Your task to perform on an android device: Search for top rated burger restaurants on Maps Image 0: 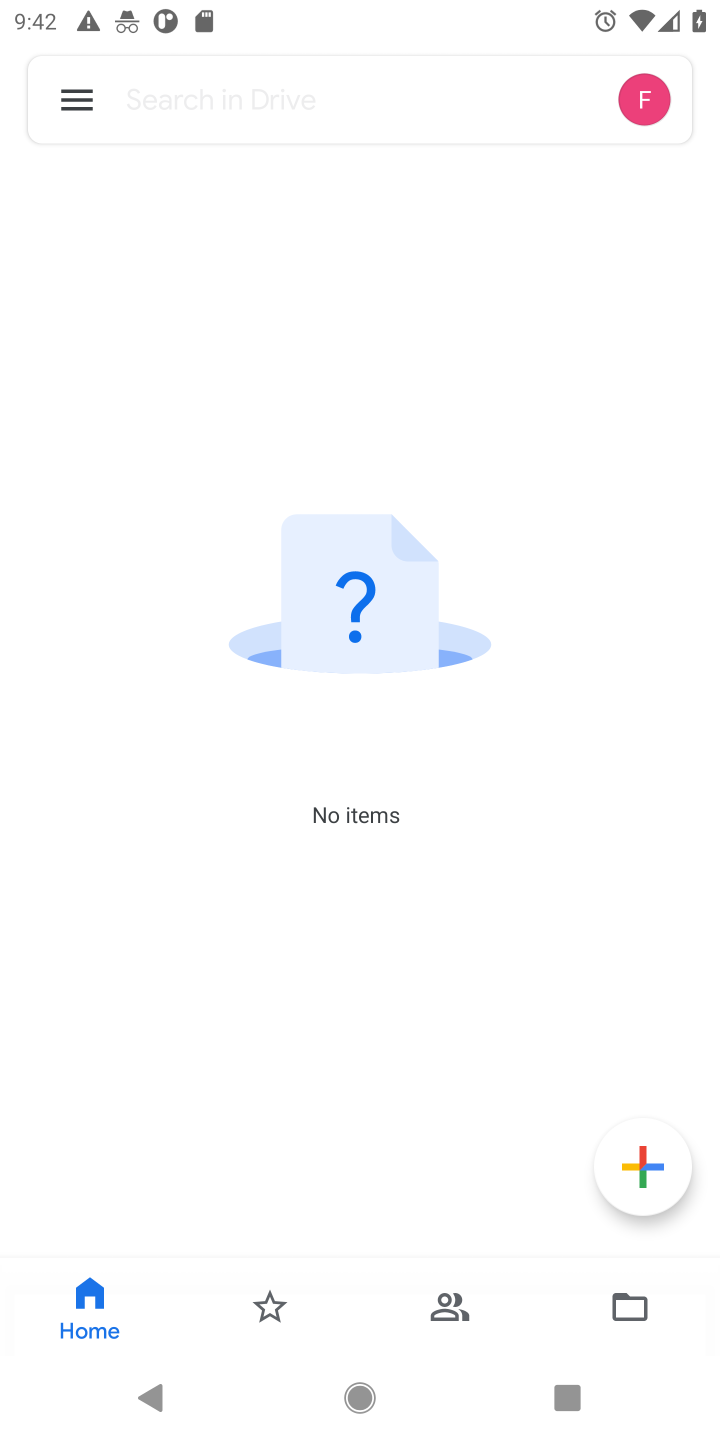
Step 0: press home button
Your task to perform on an android device: Search for top rated burger restaurants on Maps Image 1: 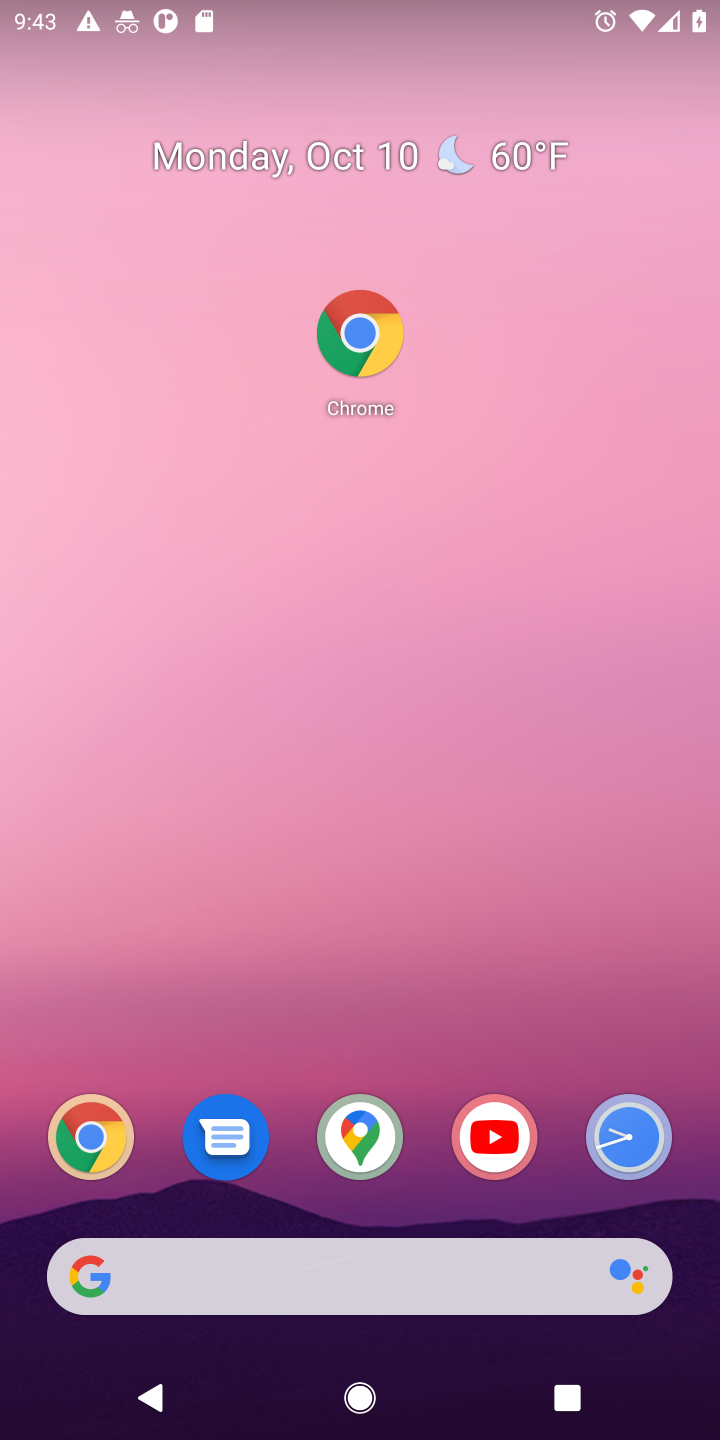
Step 1: click (350, 1127)
Your task to perform on an android device: Search for top rated burger restaurants on Maps Image 2: 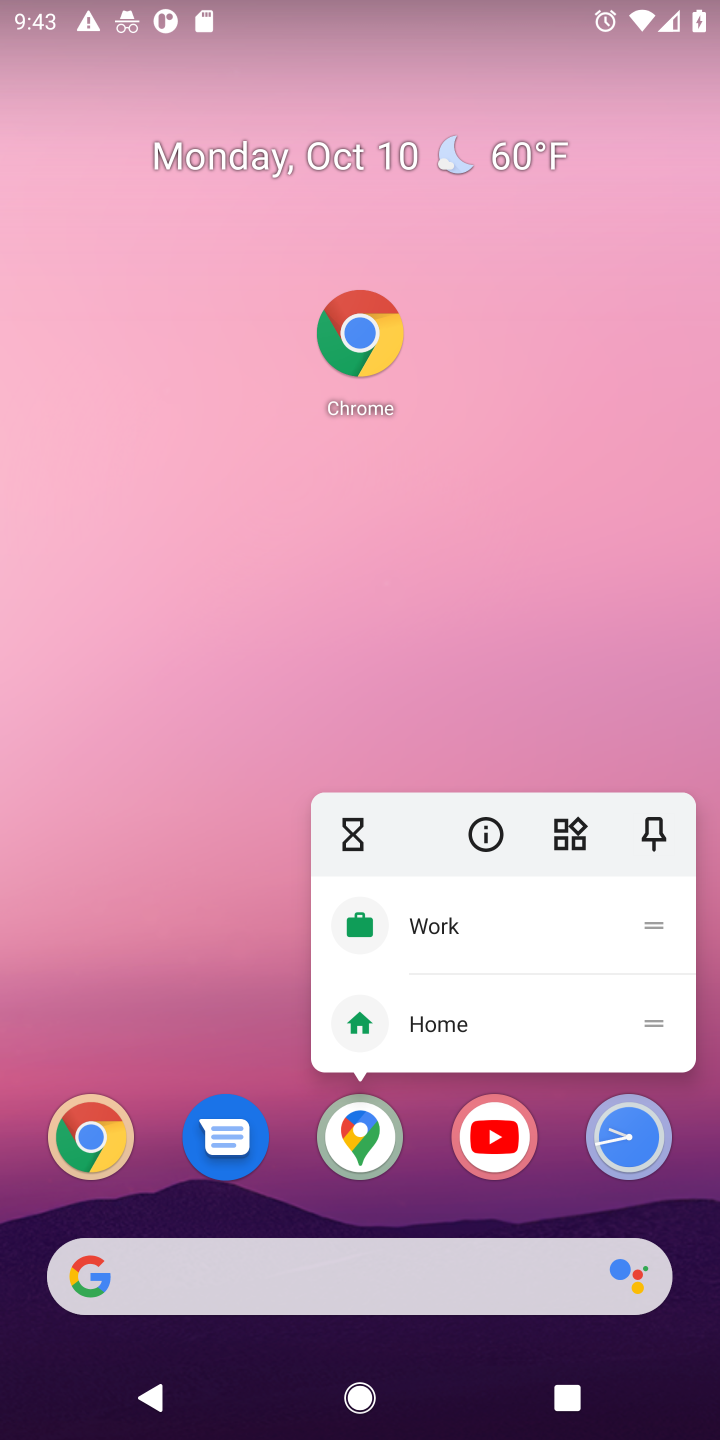
Step 2: click (361, 1133)
Your task to perform on an android device: Search for top rated burger restaurants on Maps Image 3: 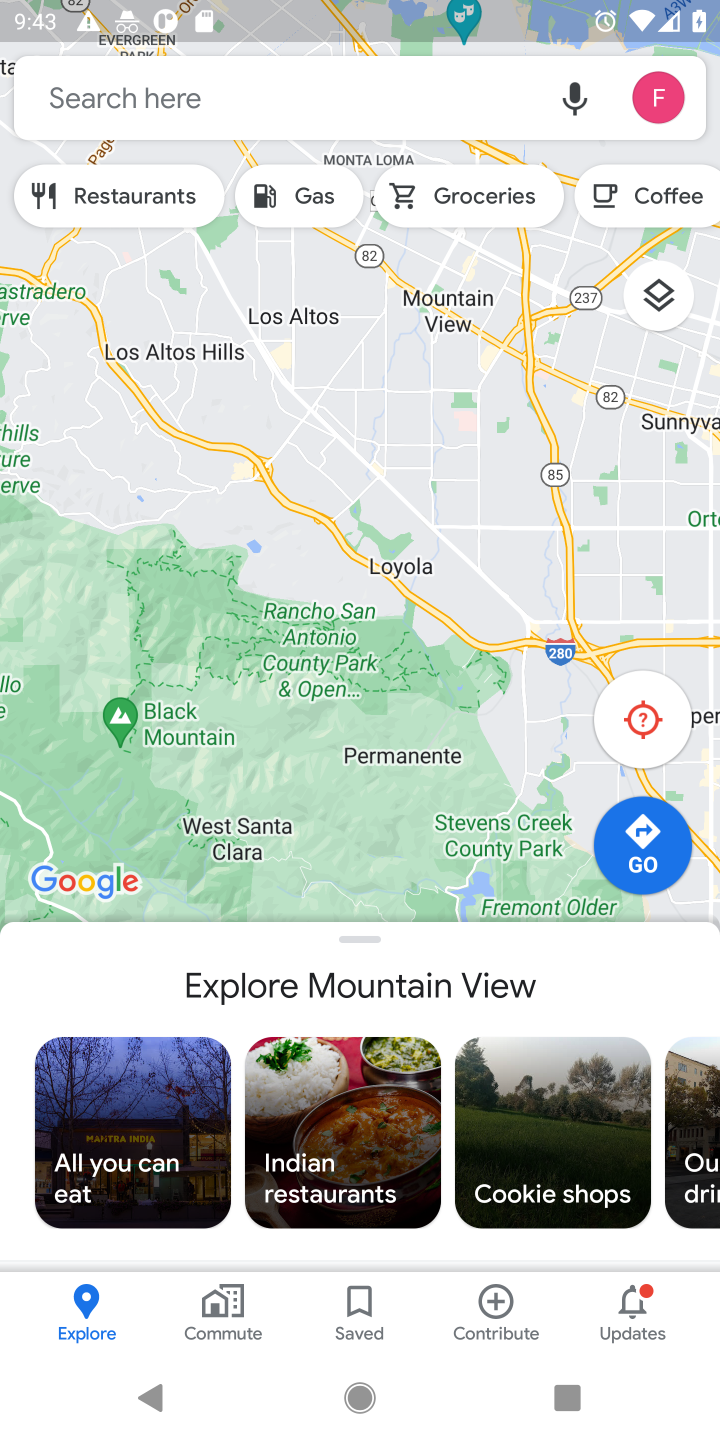
Step 3: click (198, 85)
Your task to perform on an android device: Search for top rated burger restaurants on Maps Image 4: 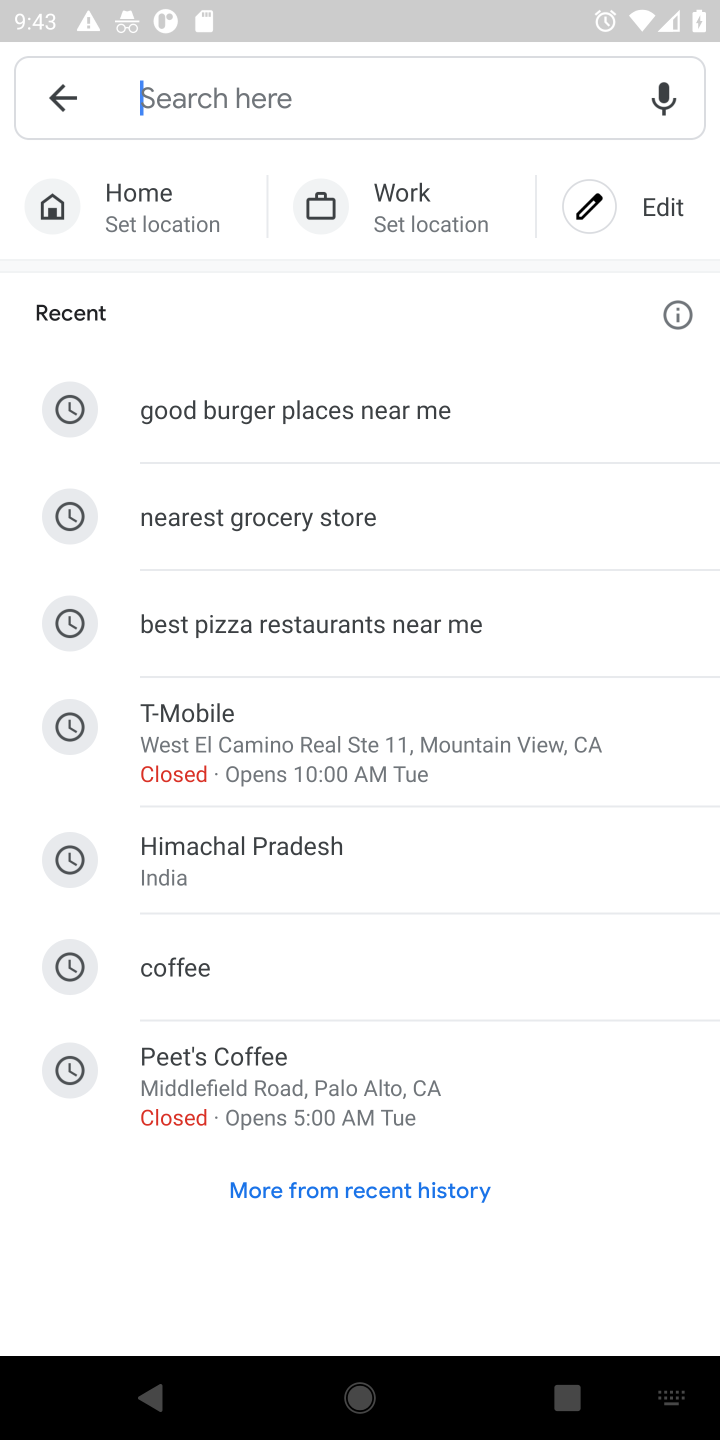
Step 4: type "top rated burger restaurants"
Your task to perform on an android device: Search for top rated burger restaurants on Maps Image 5: 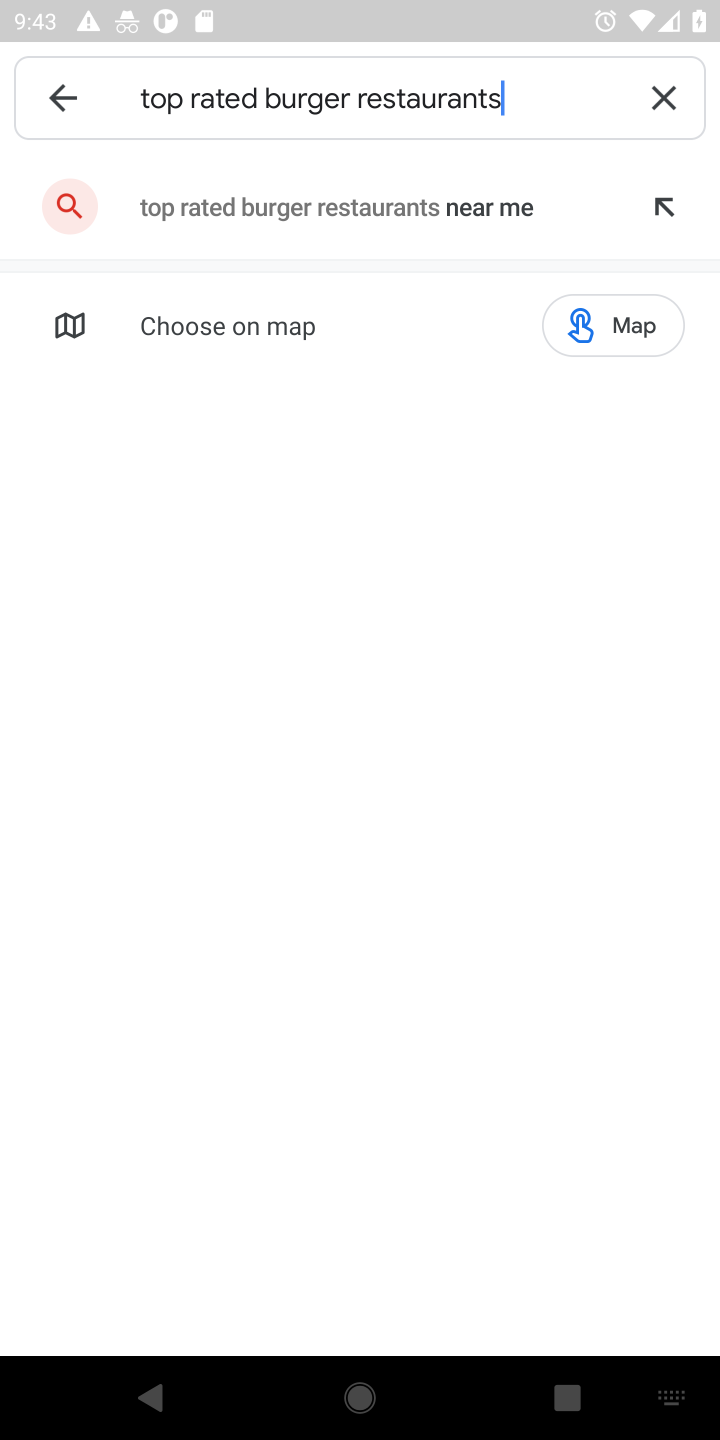
Step 5: click (331, 205)
Your task to perform on an android device: Search for top rated burger restaurants on Maps Image 6: 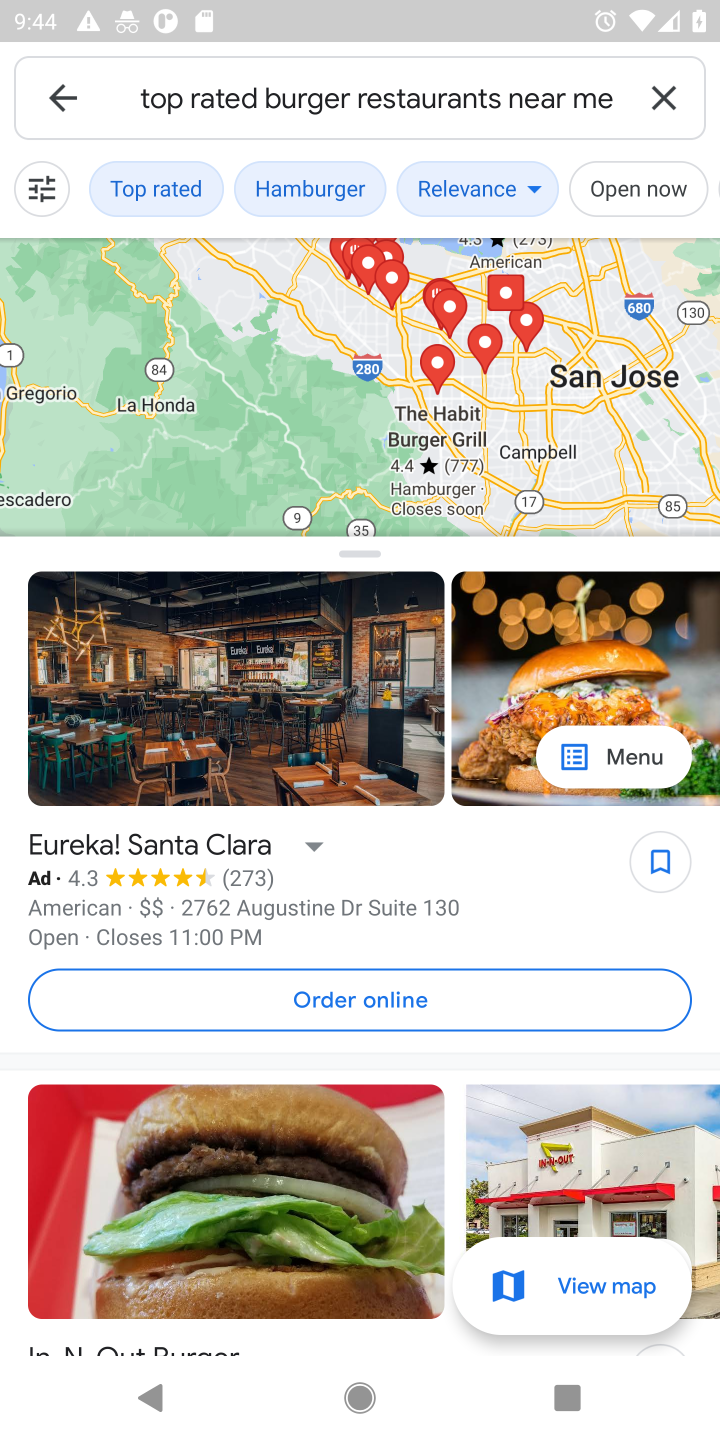
Step 6: task complete